Your task to perform on an android device: clear all cookies in the chrome app Image 0: 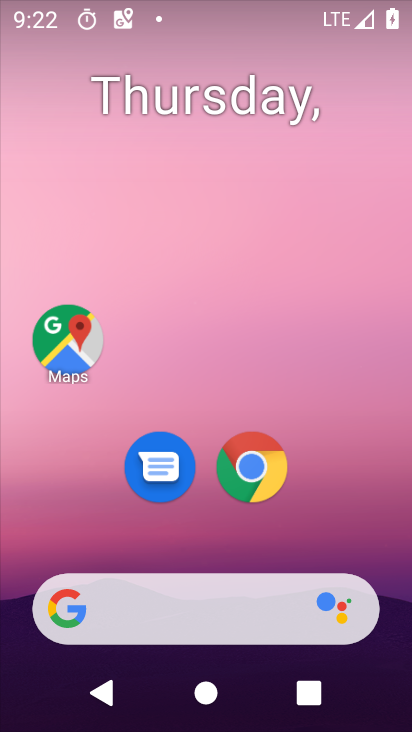
Step 0: click (249, 465)
Your task to perform on an android device: clear all cookies in the chrome app Image 1: 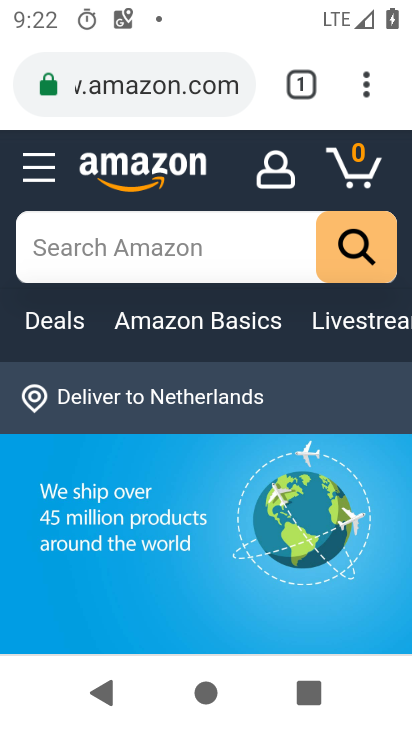
Step 1: drag from (366, 77) to (162, 510)
Your task to perform on an android device: clear all cookies in the chrome app Image 2: 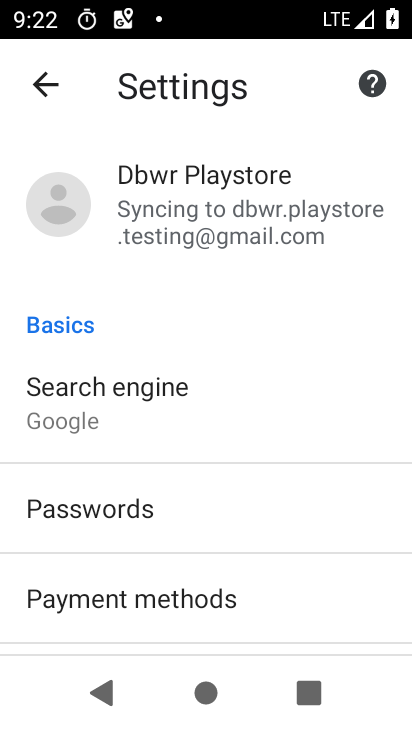
Step 2: drag from (228, 552) to (253, 99)
Your task to perform on an android device: clear all cookies in the chrome app Image 3: 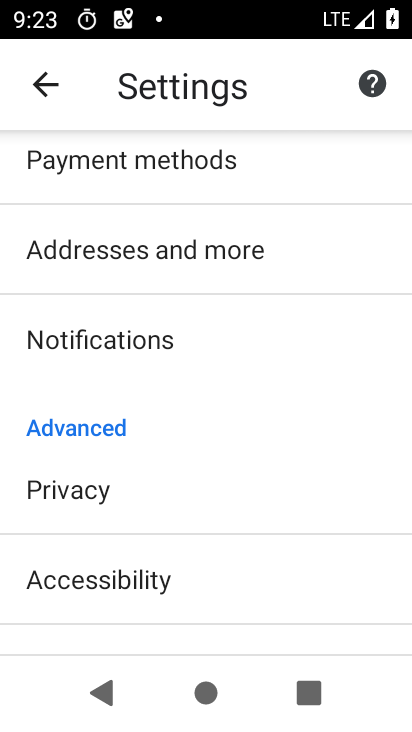
Step 3: drag from (248, 546) to (231, 363)
Your task to perform on an android device: clear all cookies in the chrome app Image 4: 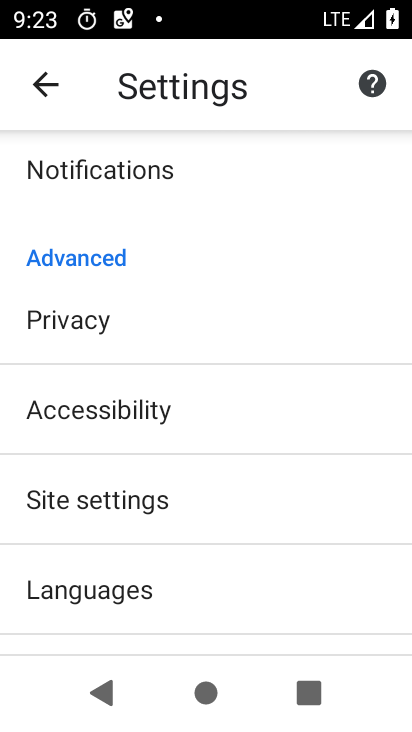
Step 4: click (34, 76)
Your task to perform on an android device: clear all cookies in the chrome app Image 5: 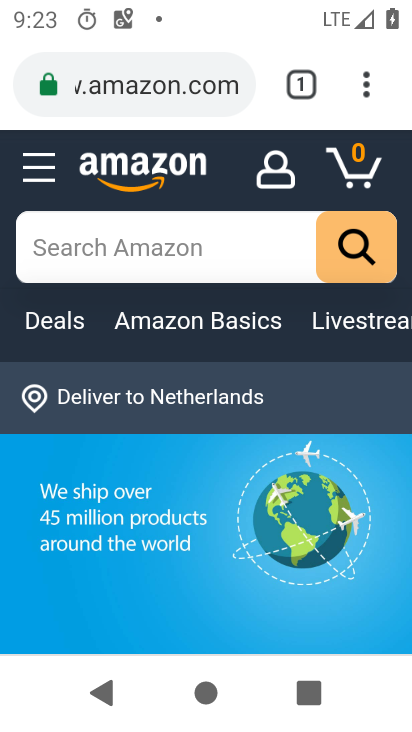
Step 5: drag from (365, 83) to (127, 481)
Your task to perform on an android device: clear all cookies in the chrome app Image 6: 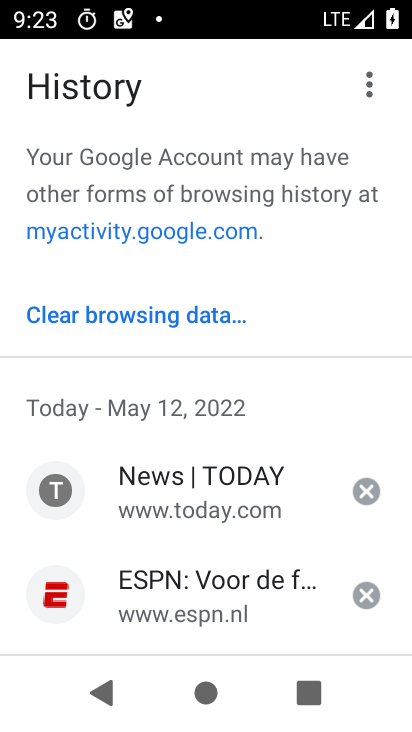
Step 6: click (176, 310)
Your task to perform on an android device: clear all cookies in the chrome app Image 7: 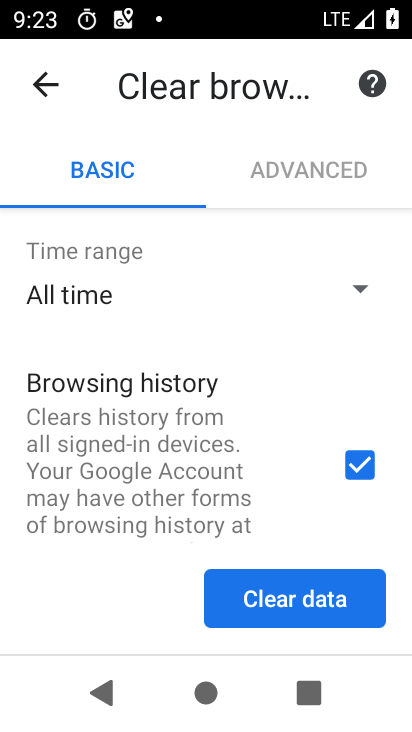
Step 7: drag from (191, 548) to (186, 142)
Your task to perform on an android device: clear all cookies in the chrome app Image 8: 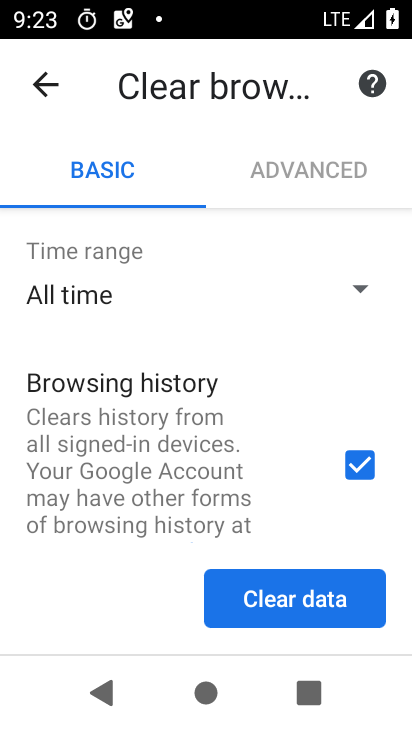
Step 8: drag from (211, 452) to (281, 158)
Your task to perform on an android device: clear all cookies in the chrome app Image 9: 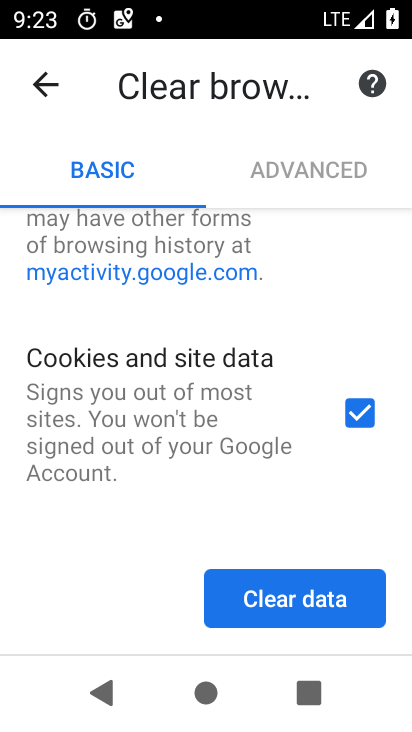
Step 9: click (316, 613)
Your task to perform on an android device: clear all cookies in the chrome app Image 10: 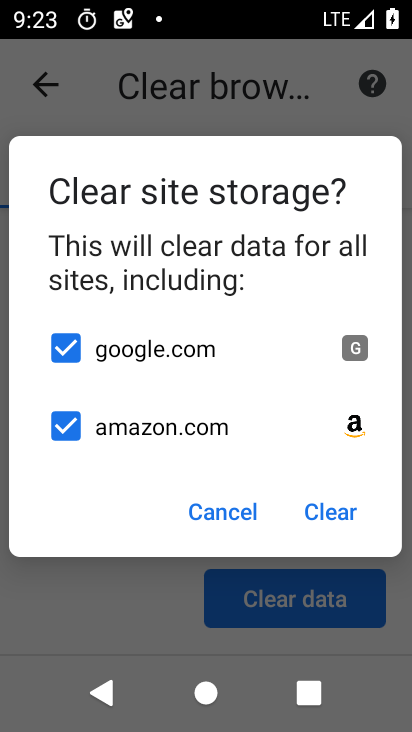
Step 10: click (333, 516)
Your task to perform on an android device: clear all cookies in the chrome app Image 11: 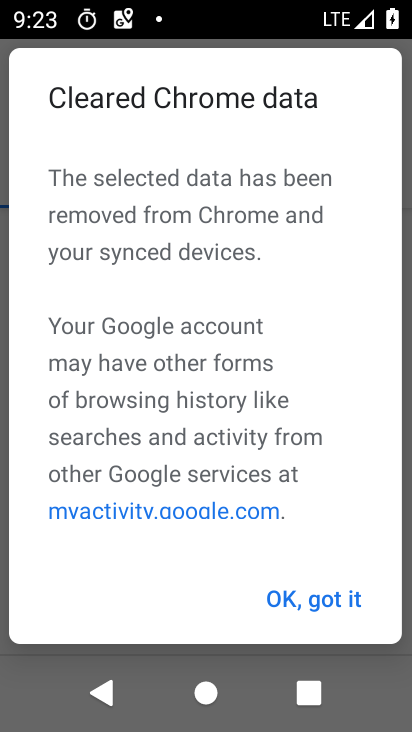
Step 11: task complete